Your task to perform on an android device: check the backup settings in the google photos Image 0: 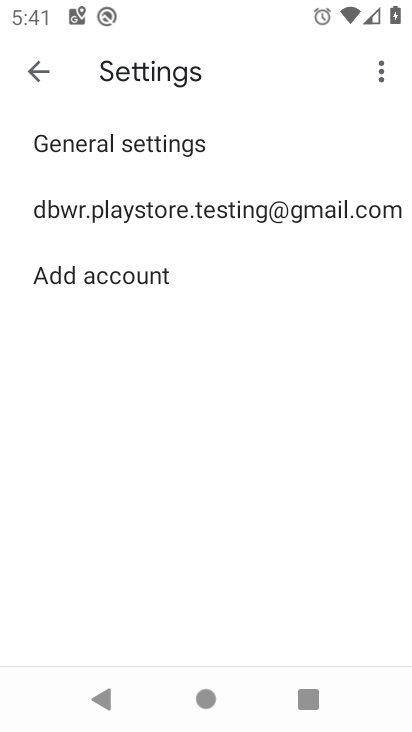
Step 0: press home button
Your task to perform on an android device: check the backup settings in the google photos Image 1: 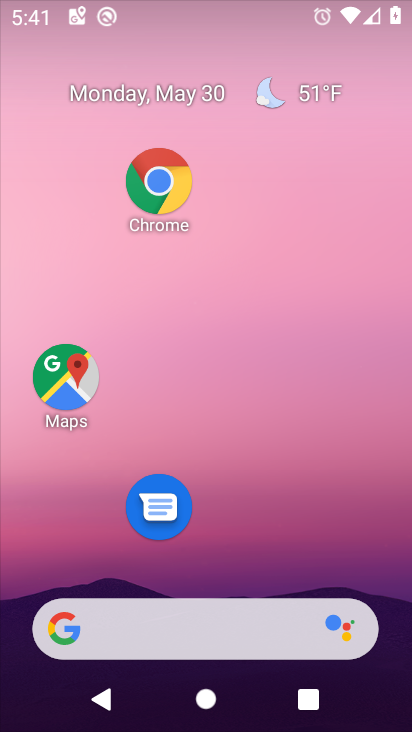
Step 1: drag from (309, 515) to (352, 200)
Your task to perform on an android device: check the backup settings in the google photos Image 2: 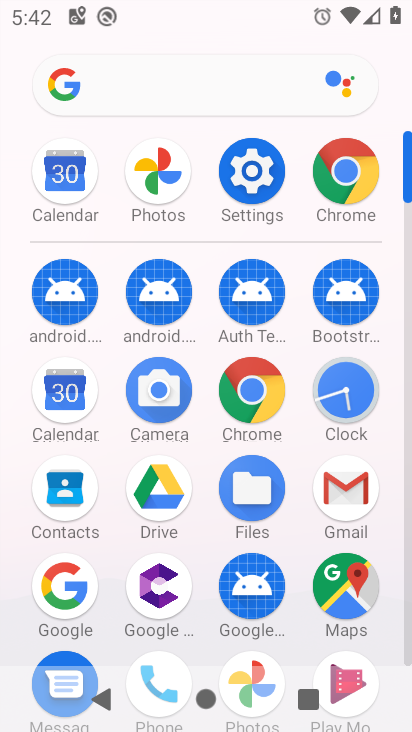
Step 2: click (130, 158)
Your task to perform on an android device: check the backup settings in the google photos Image 3: 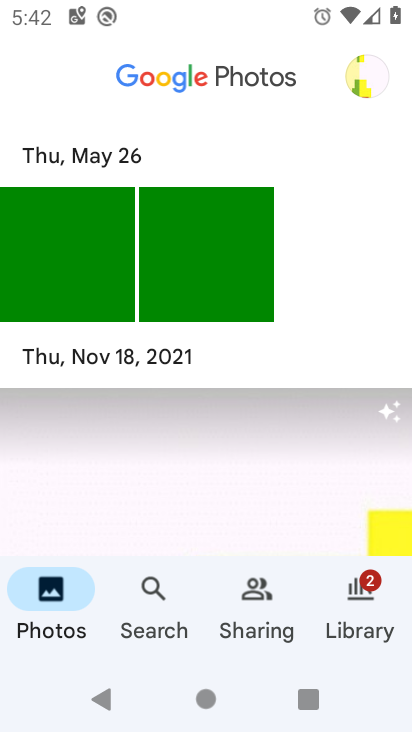
Step 3: click (382, 63)
Your task to perform on an android device: check the backup settings in the google photos Image 4: 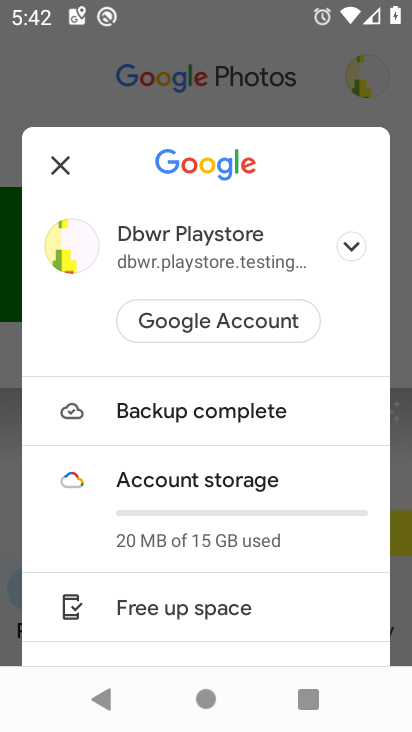
Step 4: drag from (208, 627) to (249, 291)
Your task to perform on an android device: check the backup settings in the google photos Image 5: 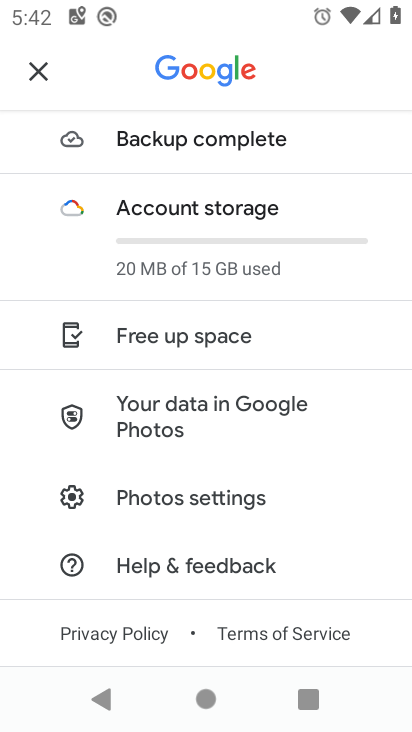
Step 5: click (200, 496)
Your task to perform on an android device: check the backup settings in the google photos Image 6: 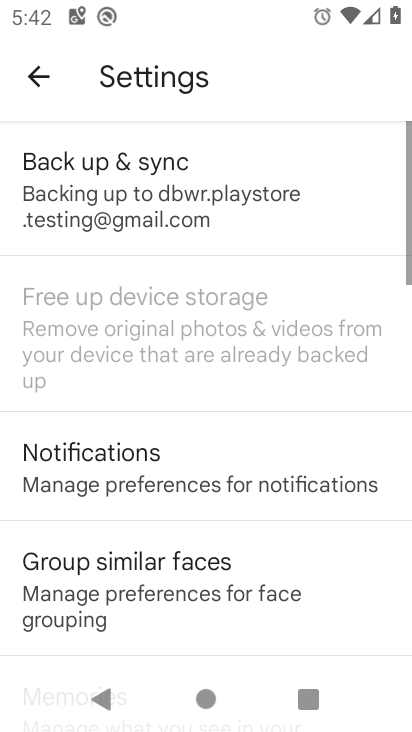
Step 6: click (97, 217)
Your task to perform on an android device: check the backup settings in the google photos Image 7: 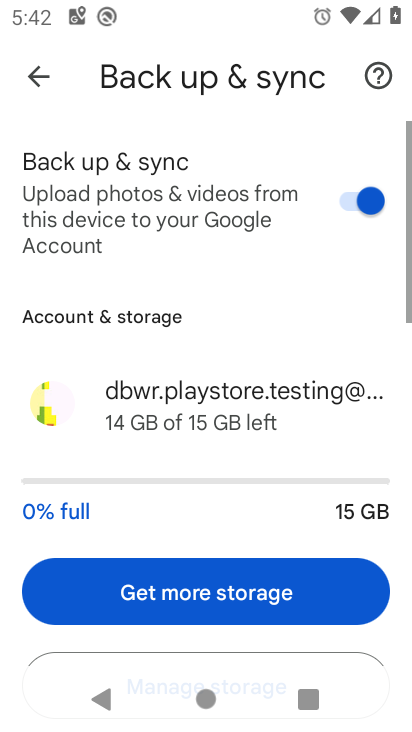
Step 7: task complete